Your task to perform on an android device: Show me popular videos on Youtube Image 0: 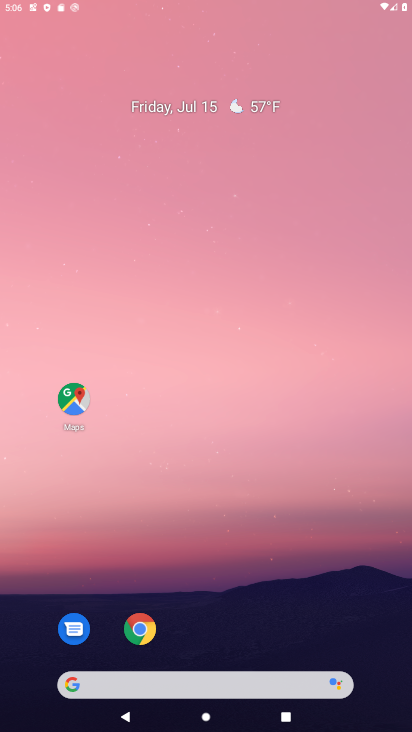
Step 0: press home button
Your task to perform on an android device: Show me popular videos on Youtube Image 1: 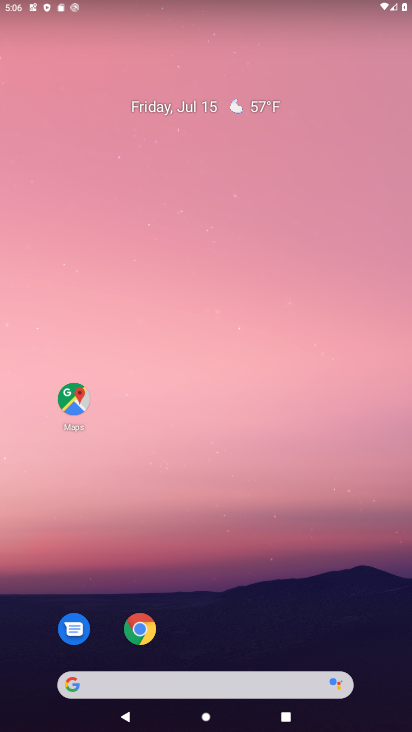
Step 1: drag from (263, 613) to (305, 135)
Your task to perform on an android device: Show me popular videos on Youtube Image 2: 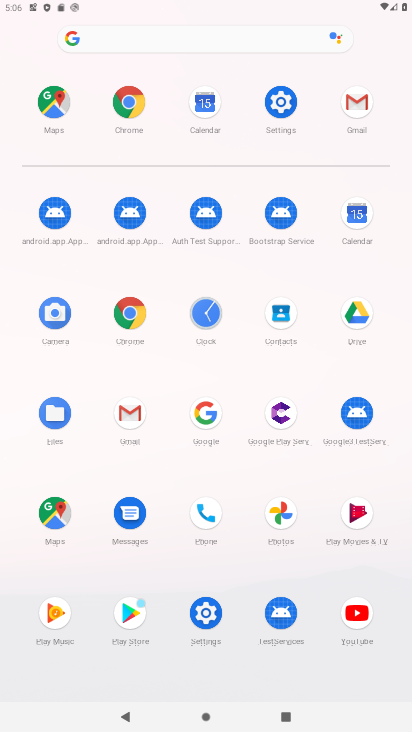
Step 2: click (342, 612)
Your task to perform on an android device: Show me popular videos on Youtube Image 3: 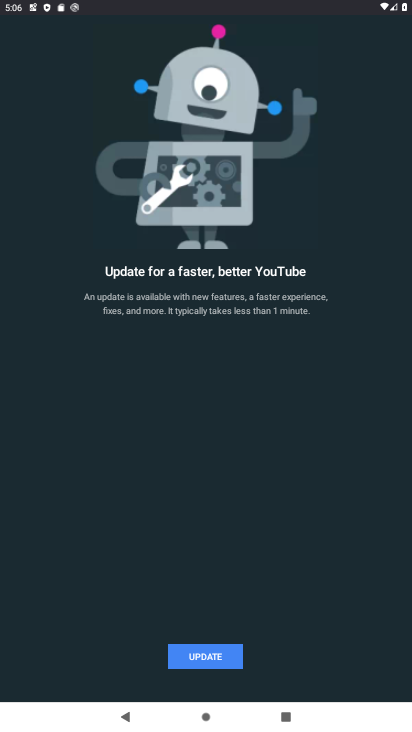
Step 3: click (208, 655)
Your task to perform on an android device: Show me popular videos on Youtube Image 4: 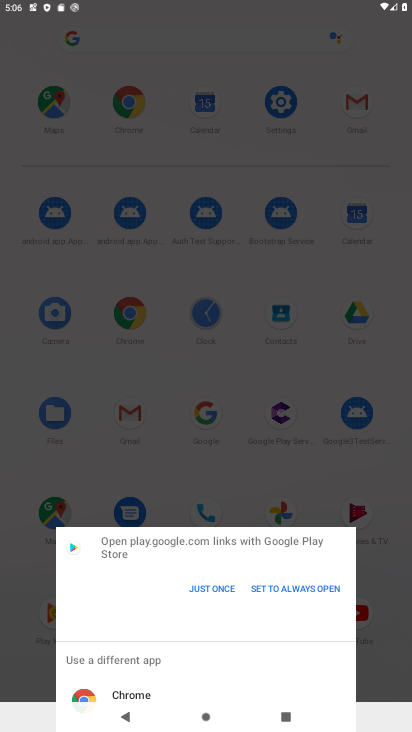
Step 4: click (212, 590)
Your task to perform on an android device: Show me popular videos on Youtube Image 5: 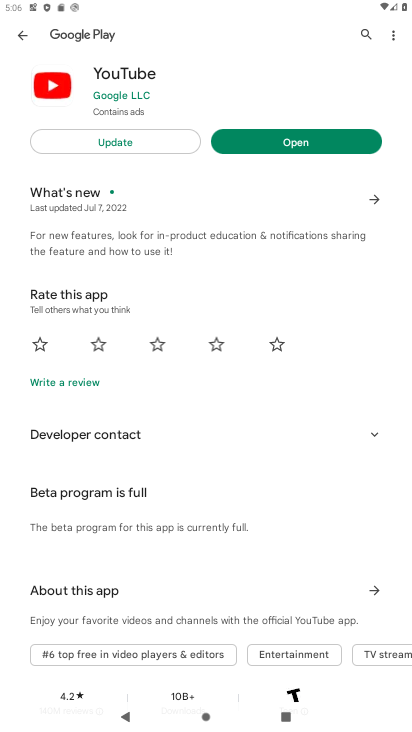
Step 5: click (165, 142)
Your task to perform on an android device: Show me popular videos on Youtube Image 6: 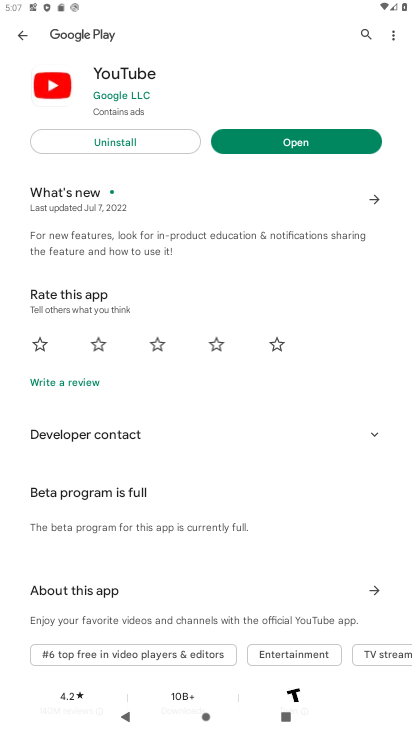
Step 6: click (350, 142)
Your task to perform on an android device: Show me popular videos on Youtube Image 7: 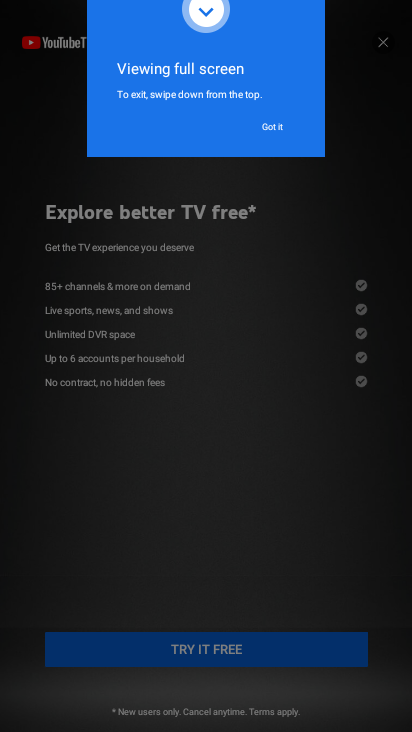
Step 7: click (389, 40)
Your task to perform on an android device: Show me popular videos on Youtube Image 8: 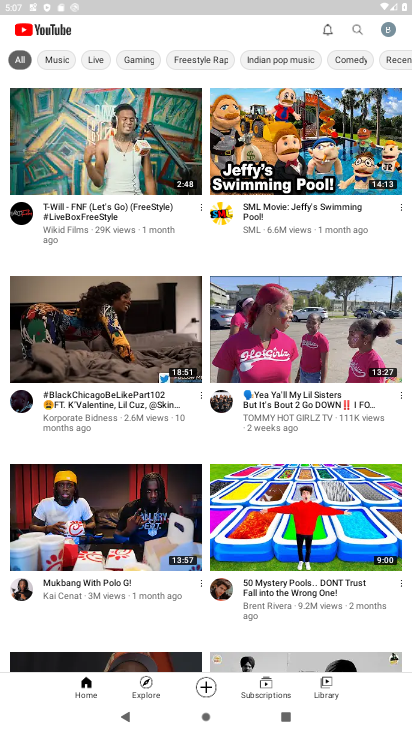
Step 8: click (148, 678)
Your task to perform on an android device: Show me popular videos on Youtube Image 9: 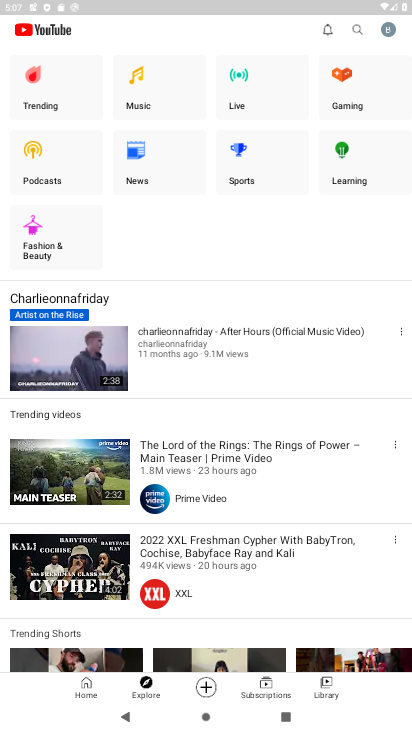
Step 9: click (44, 78)
Your task to perform on an android device: Show me popular videos on Youtube Image 10: 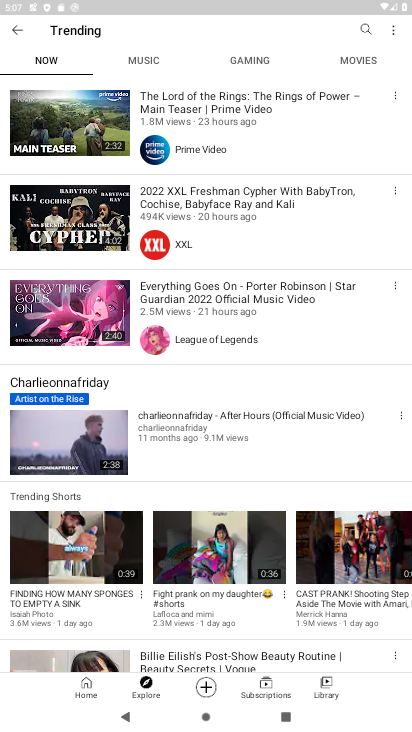
Step 10: task complete